Your task to perform on an android device: Empty the shopping cart on walmart.com. Search for lenovo thinkpad on walmart.com, select the first entry, add it to the cart, then select checkout. Image 0: 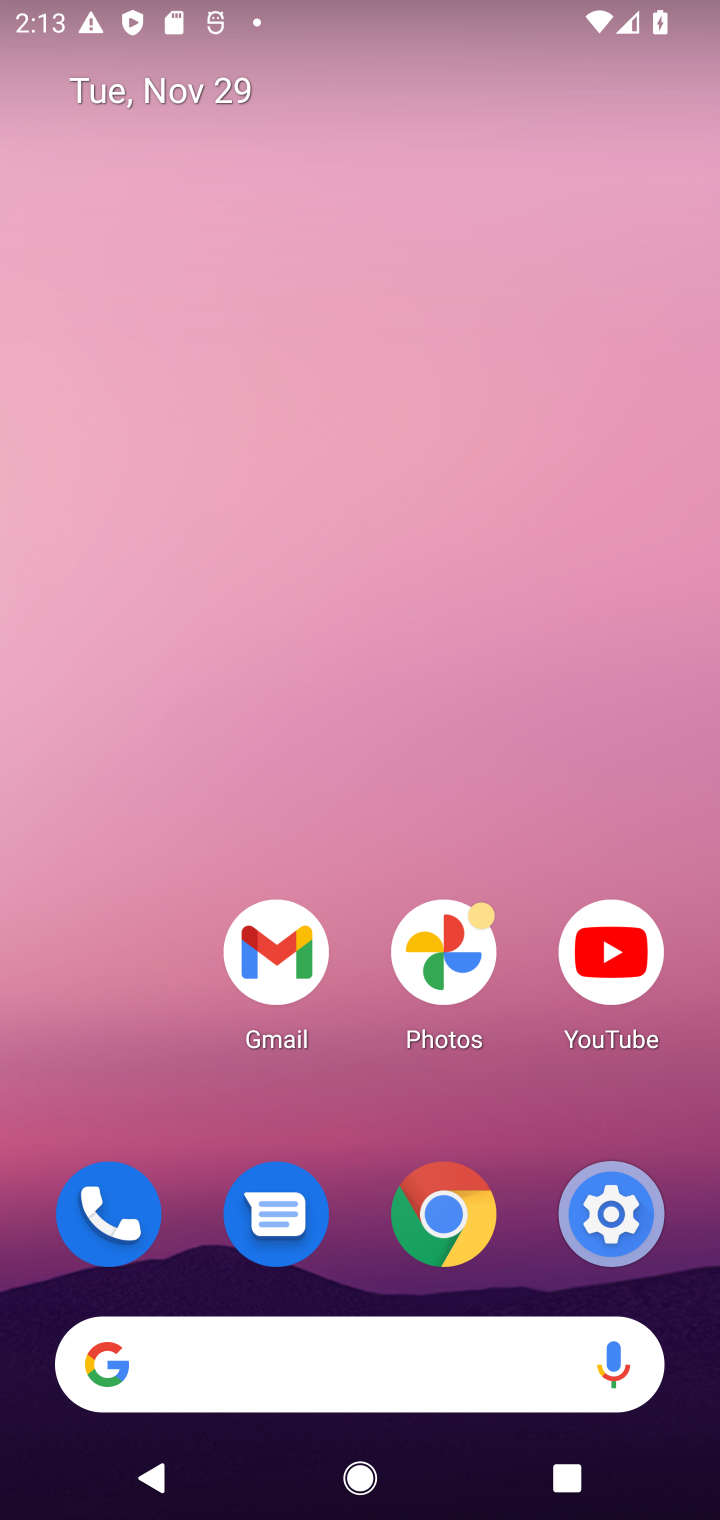
Step 0: click (300, 1361)
Your task to perform on an android device: Empty the shopping cart on walmart.com. Search for lenovo thinkpad on walmart.com, select the first entry, add it to the cart, then select checkout. Image 1: 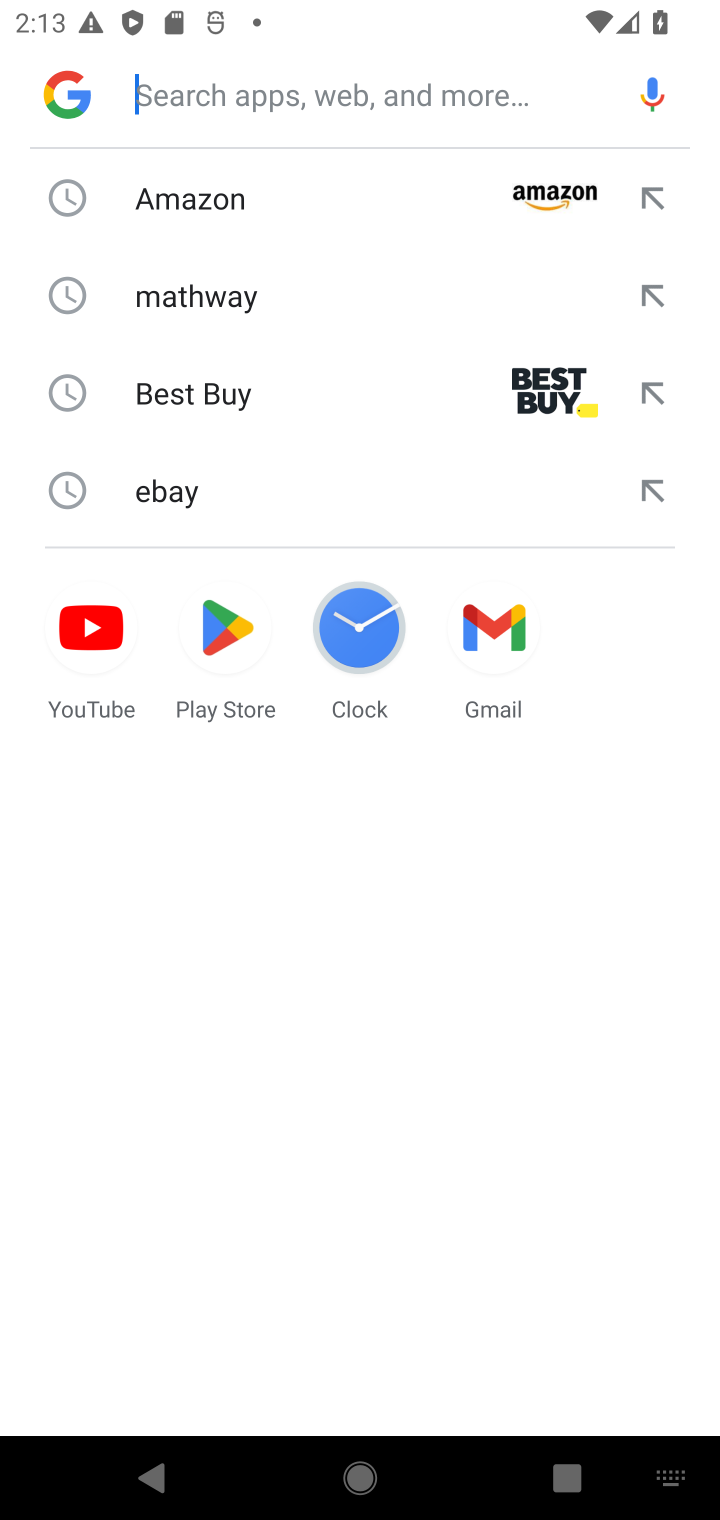
Step 1: type "walmart"
Your task to perform on an android device: Empty the shopping cart on walmart.com. Search for lenovo thinkpad on walmart.com, select the first entry, add it to the cart, then select checkout. Image 2: 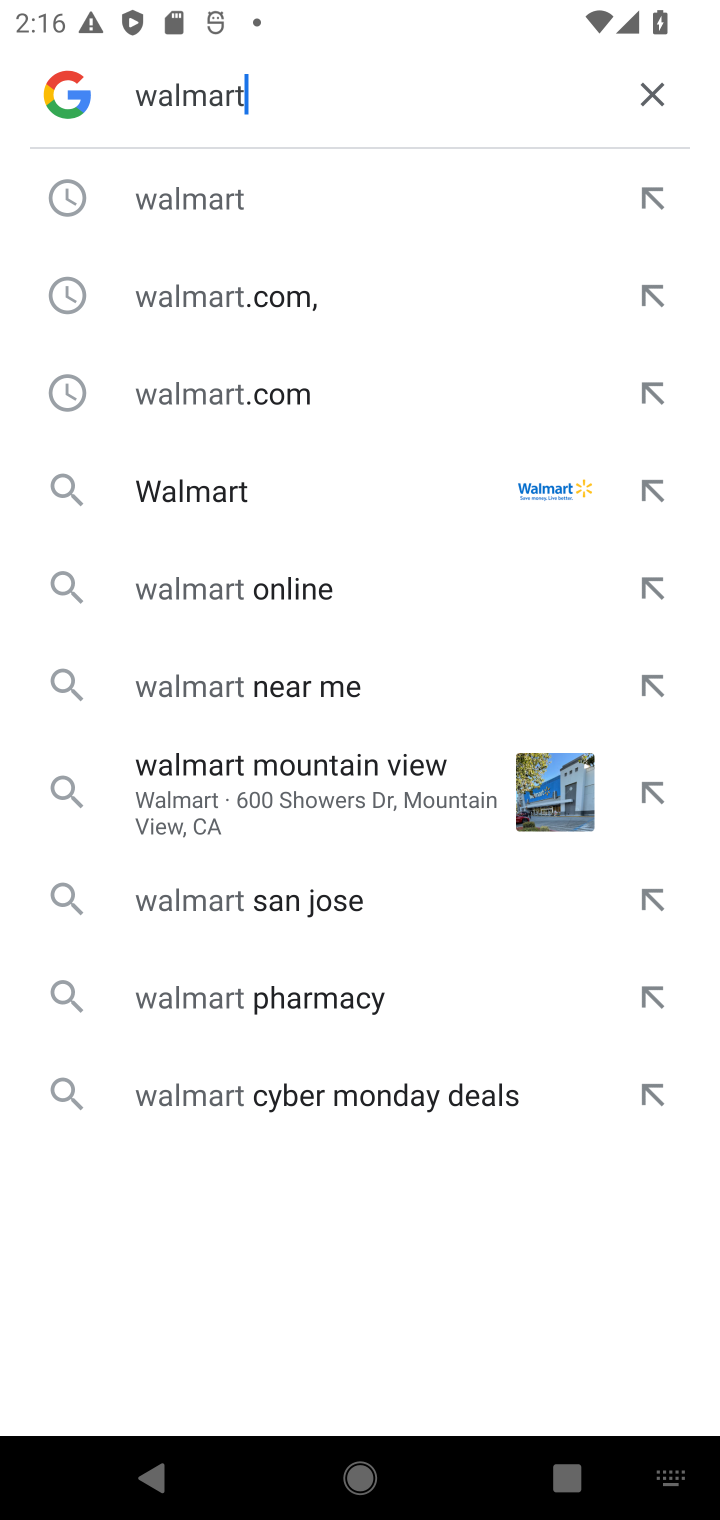
Step 2: click (173, 240)
Your task to perform on an android device: Empty the shopping cart on walmart.com. Search for lenovo thinkpad on walmart.com, select the first entry, add it to the cart, then select checkout. Image 3: 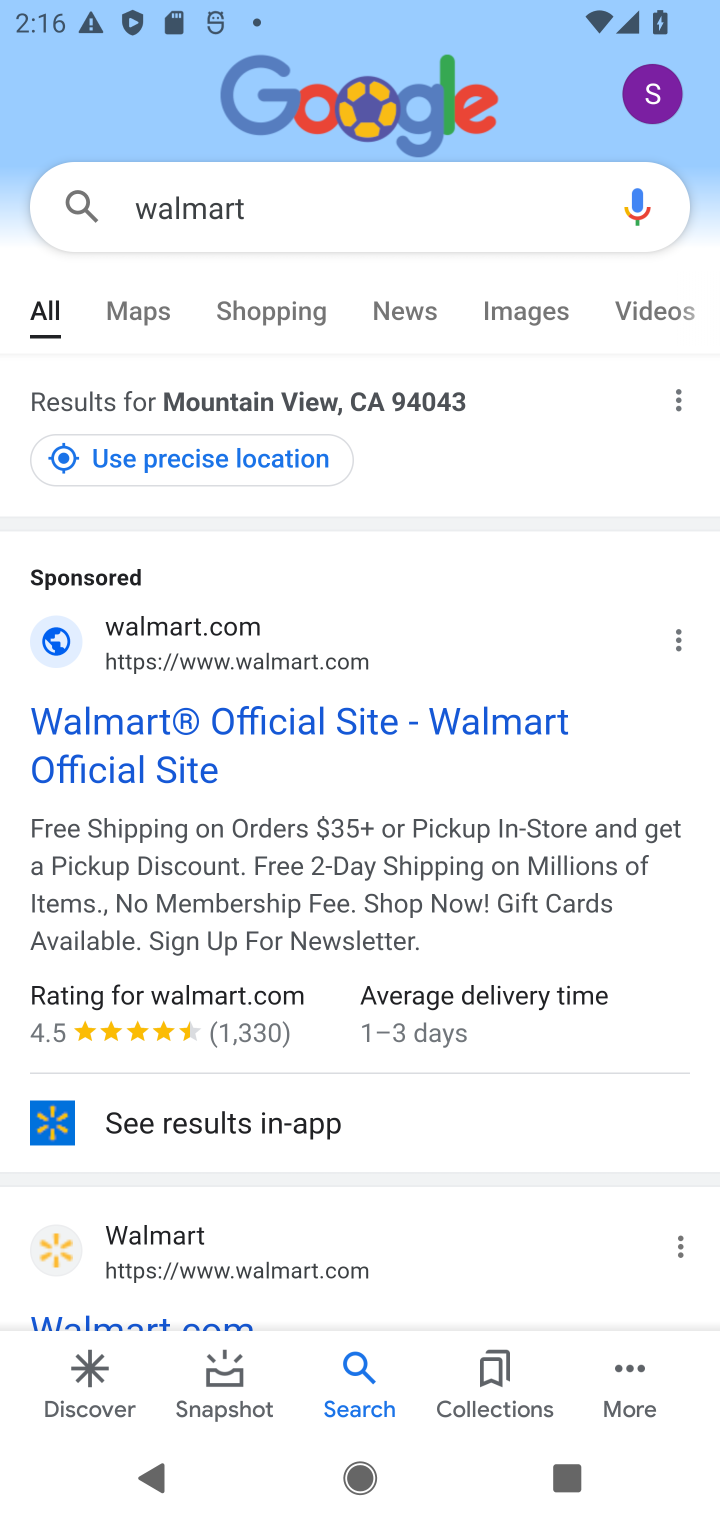
Step 3: click (163, 728)
Your task to perform on an android device: Empty the shopping cart on walmart.com. Search for lenovo thinkpad on walmart.com, select the first entry, add it to the cart, then select checkout. Image 4: 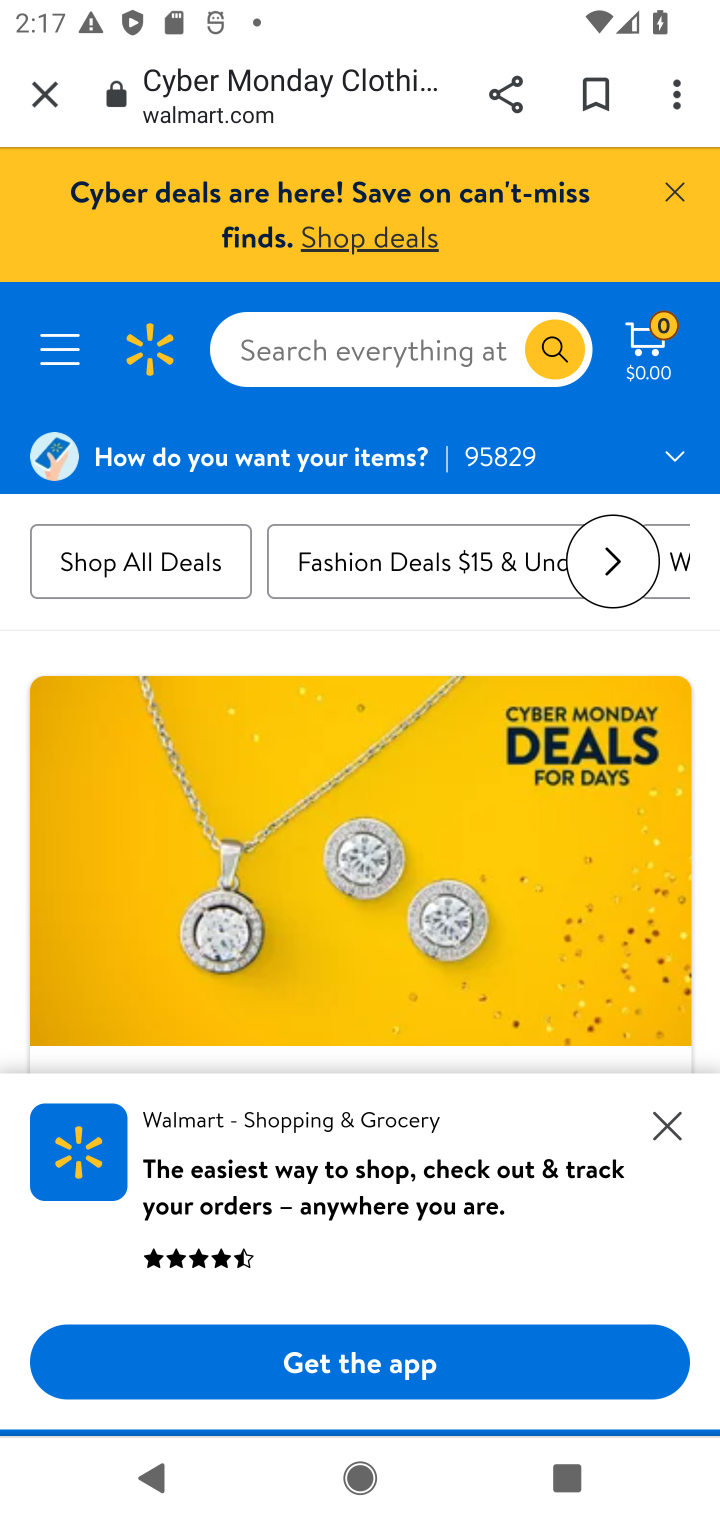
Step 4: task complete